Your task to perform on an android device: Do I have any events this weekend? Image 0: 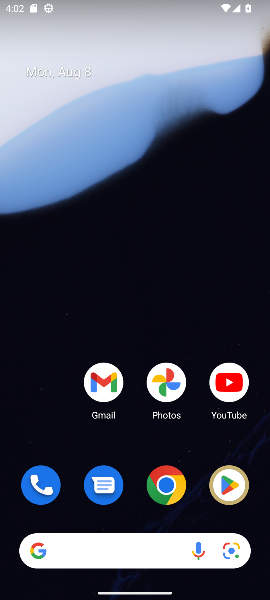
Step 0: drag from (165, 573) to (83, 90)
Your task to perform on an android device: Do I have any events this weekend? Image 1: 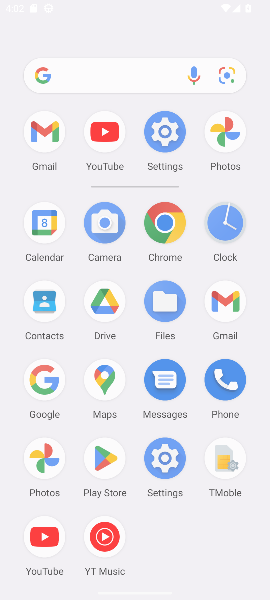
Step 1: drag from (115, 495) to (115, 112)
Your task to perform on an android device: Do I have any events this weekend? Image 2: 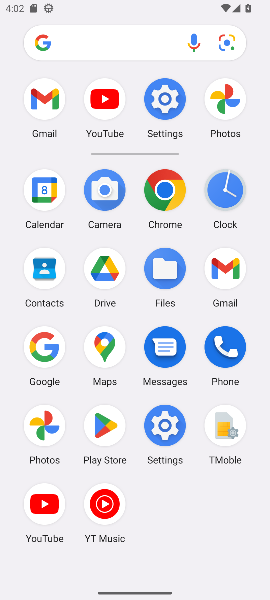
Step 2: click (44, 196)
Your task to perform on an android device: Do I have any events this weekend? Image 3: 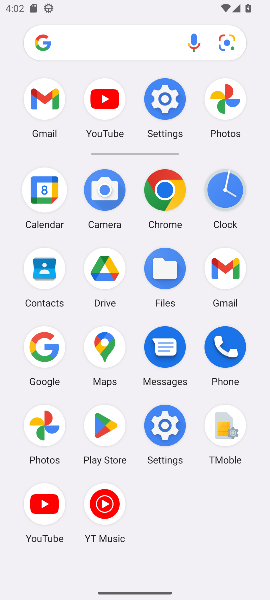
Step 3: click (42, 195)
Your task to perform on an android device: Do I have any events this weekend? Image 4: 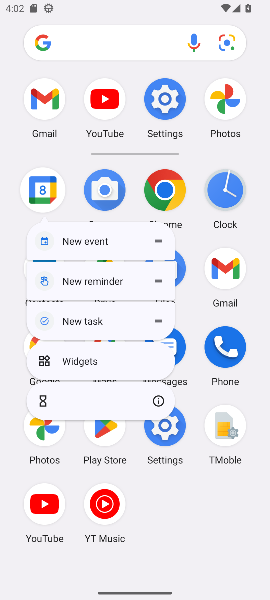
Step 4: click (41, 197)
Your task to perform on an android device: Do I have any events this weekend? Image 5: 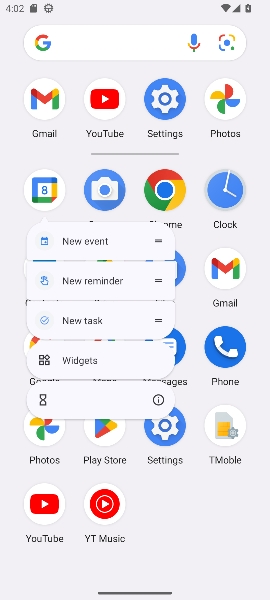
Step 5: click (44, 199)
Your task to perform on an android device: Do I have any events this weekend? Image 6: 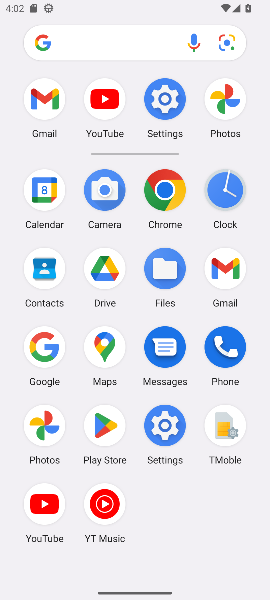
Step 6: click (46, 201)
Your task to perform on an android device: Do I have any events this weekend? Image 7: 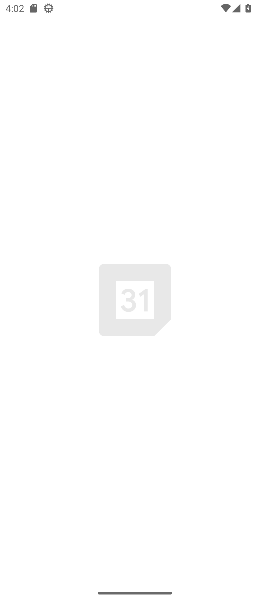
Step 7: click (46, 201)
Your task to perform on an android device: Do I have any events this weekend? Image 8: 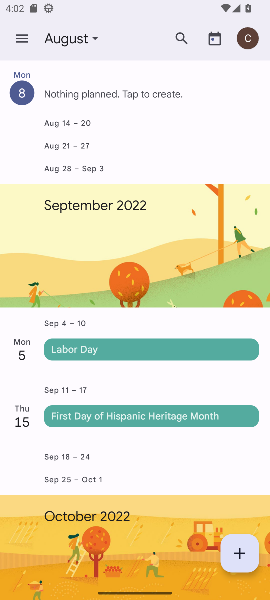
Step 8: click (94, 36)
Your task to perform on an android device: Do I have any events this weekend? Image 9: 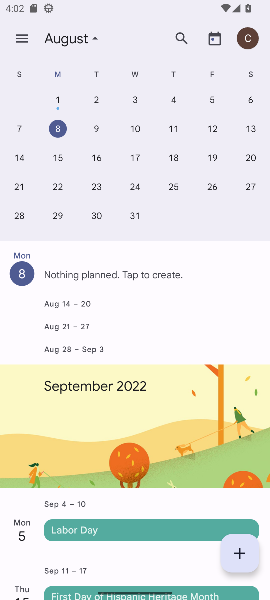
Step 9: click (207, 128)
Your task to perform on an android device: Do I have any events this weekend? Image 10: 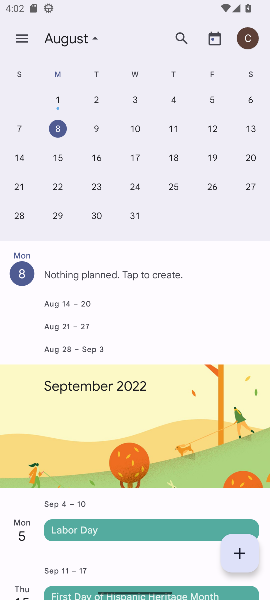
Step 10: click (207, 128)
Your task to perform on an android device: Do I have any events this weekend? Image 11: 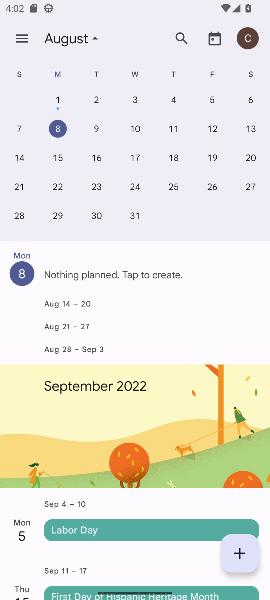
Step 11: click (207, 128)
Your task to perform on an android device: Do I have any events this weekend? Image 12: 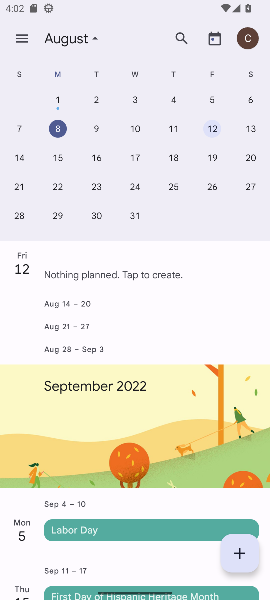
Step 12: click (207, 128)
Your task to perform on an android device: Do I have any events this weekend? Image 13: 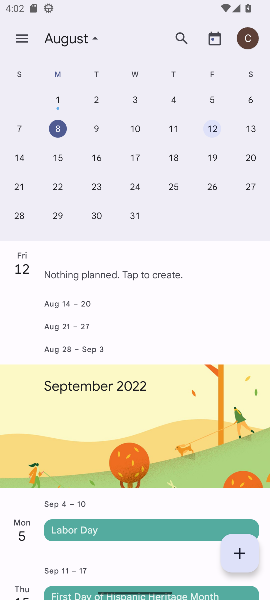
Step 13: click (210, 129)
Your task to perform on an android device: Do I have any events this weekend? Image 14: 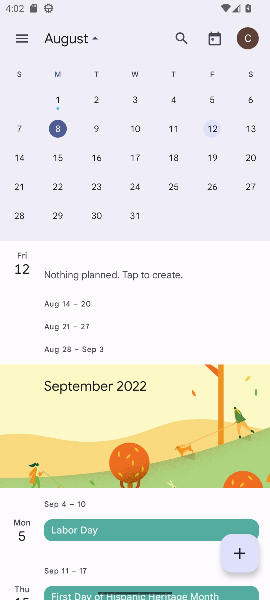
Step 14: click (214, 130)
Your task to perform on an android device: Do I have any events this weekend? Image 15: 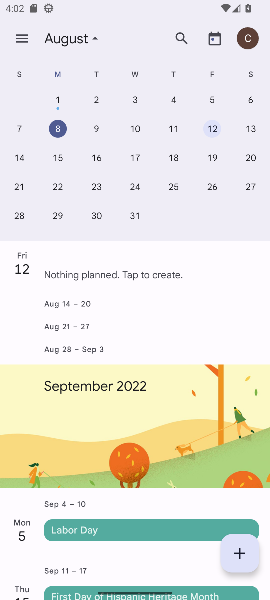
Step 15: click (214, 128)
Your task to perform on an android device: Do I have any events this weekend? Image 16: 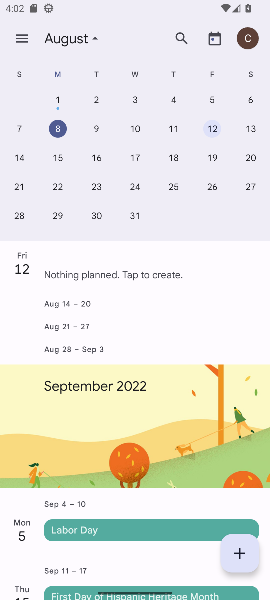
Step 16: click (213, 127)
Your task to perform on an android device: Do I have any events this weekend? Image 17: 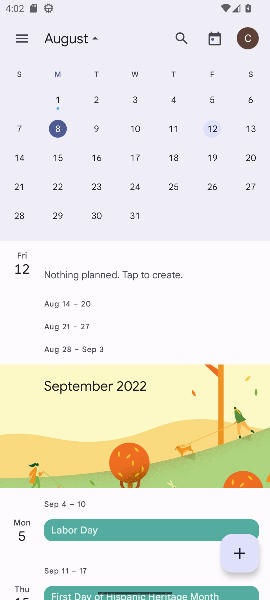
Step 17: click (213, 127)
Your task to perform on an android device: Do I have any events this weekend? Image 18: 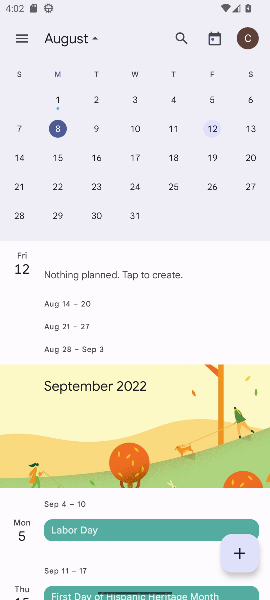
Step 18: click (213, 127)
Your task to perform on an android device: Do I have any events this weekend? Image 19: 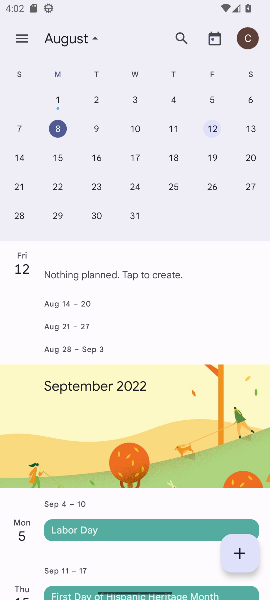
Step 19: task complete